Your task to perform on an android device: Check the weather Image 0: 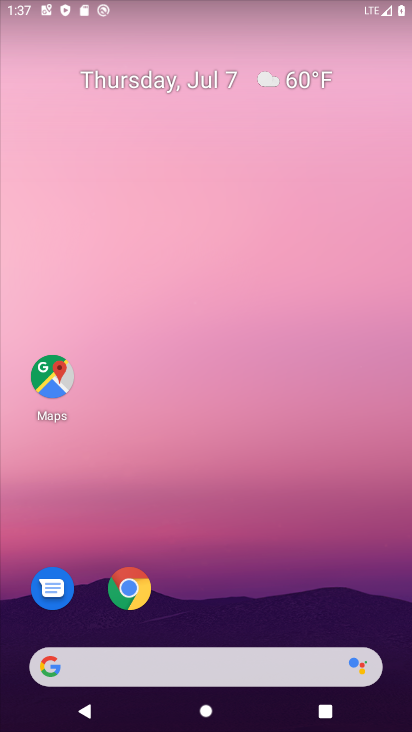
Step 0: drag from (204, 637) to (187, 174)
Your task to perform on an android device: Check the weather Image 1: 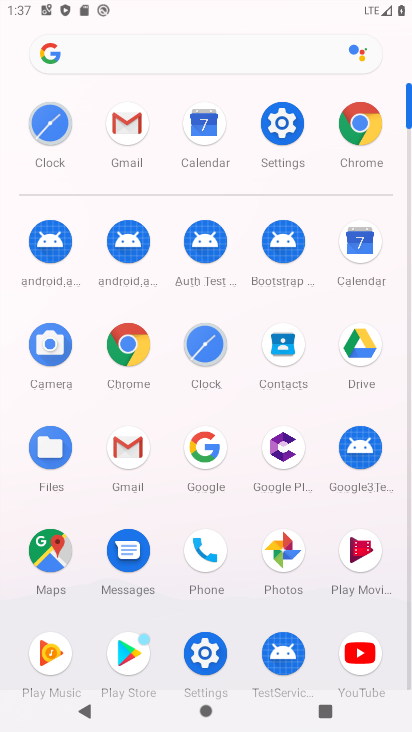
Step 1: click (357, 121)
Your task to perform on an android device: Check the weather Image 2: 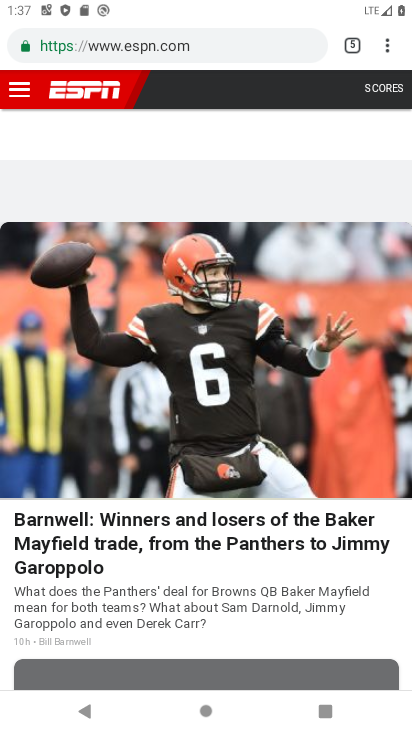
Step 2: click (392, 52)
Your task to perform on an android device: Check the weather Image 3: 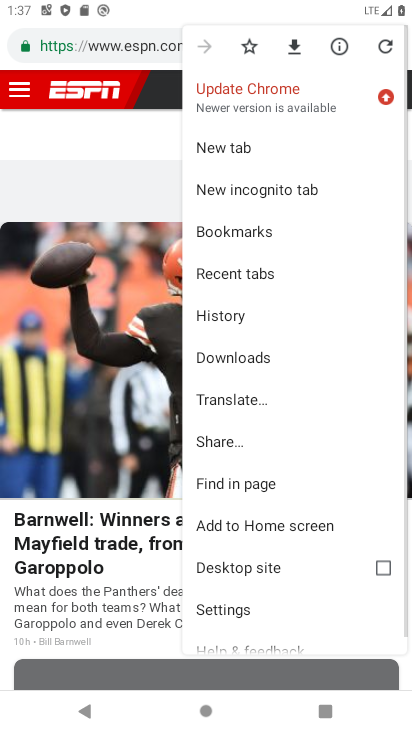
Step 3: click (271, 149)
Your task to perform on an android device: Check the weather Image 4: 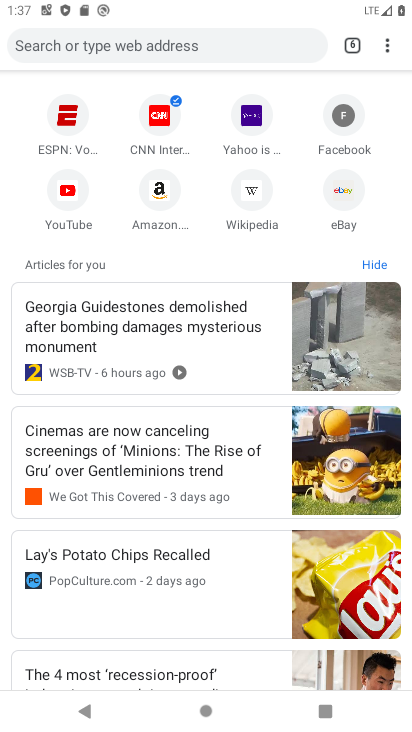
Step 4: click (170, 37)
Your task to perform on an android device: Check the weather Image 5: 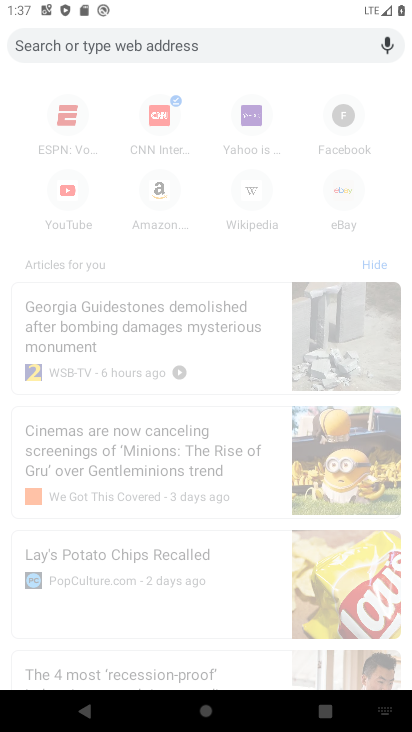
Step 5: type "Check the weather "
Your task to perform on an android device: Check the weather Image 6: 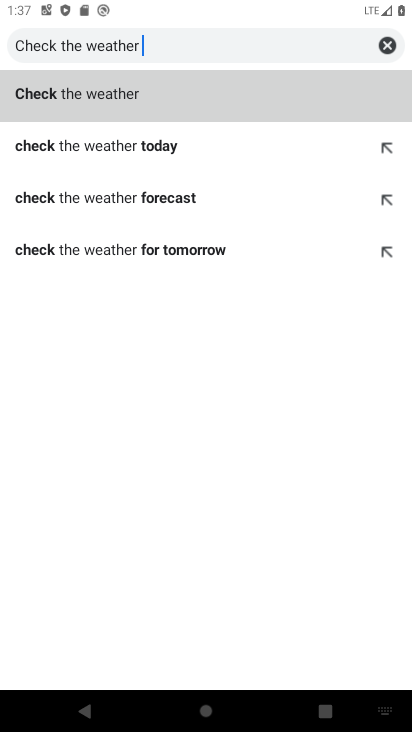
Step 6: click (332, 98)
Your task to perform on an android device: Check the weather Image 7: 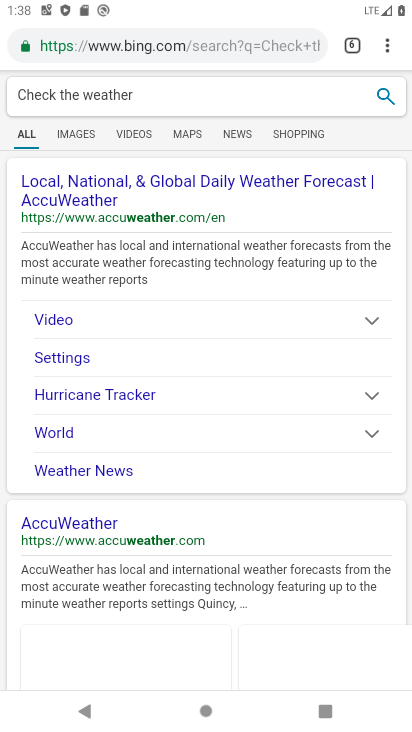
Step 7: task complete